Your task to perform on an android device: Show me recent news Image 0: 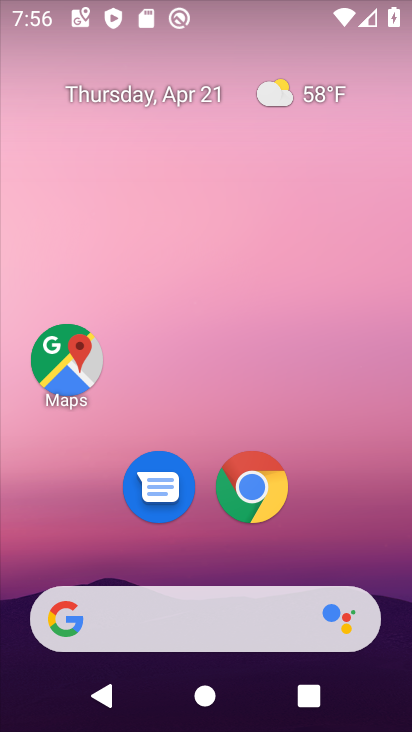
Step 0: drag from (355, 507) to (235, 26)
Your task to perform on an android device: Show me recent news Image 1: 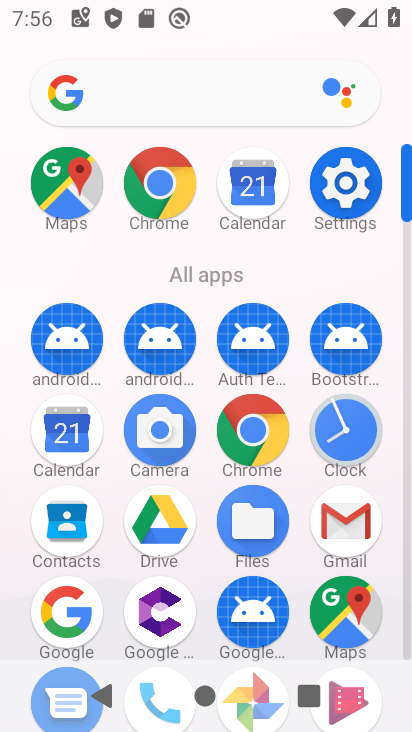
Step 1: drag from (9, 599) to (10, 266)
Your task to perform on an android device: Show me recent news Image 2: 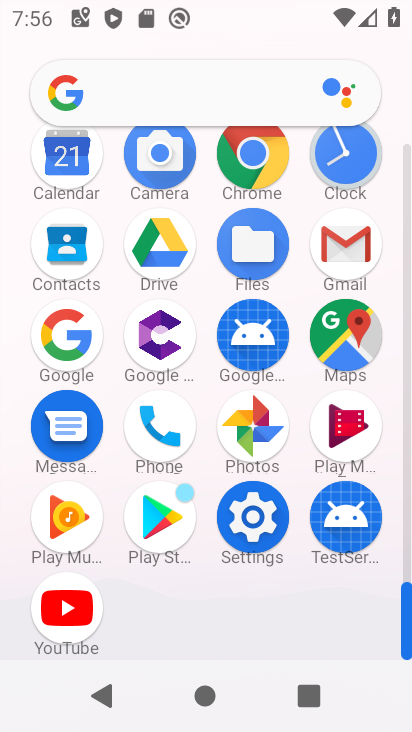
Step 2: click (252, 148)
Your task to perform on an android device: Show me recent news Image 3: 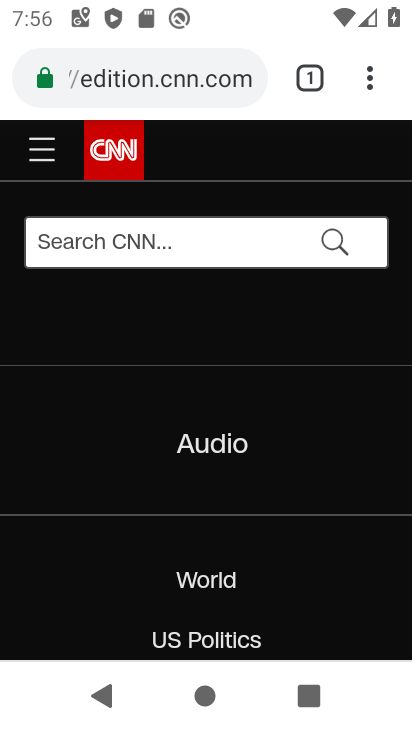
Step 3: click (186, 78)
Your task to perform on an android device: Show me recent news Image 4: 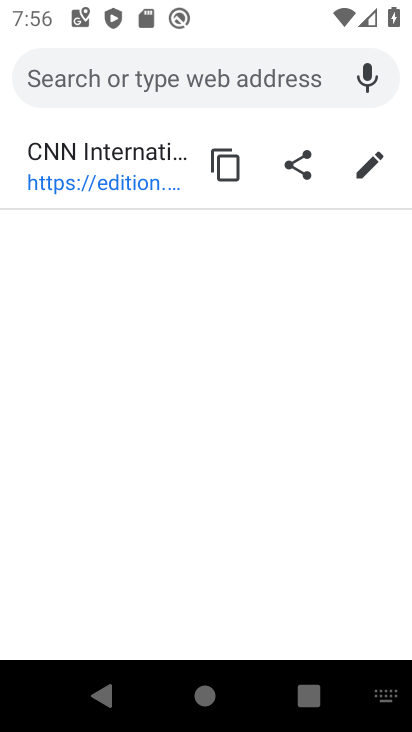
Step 4: type " recent news"
Your task to perform on an android device: Show me recent news Image 5: 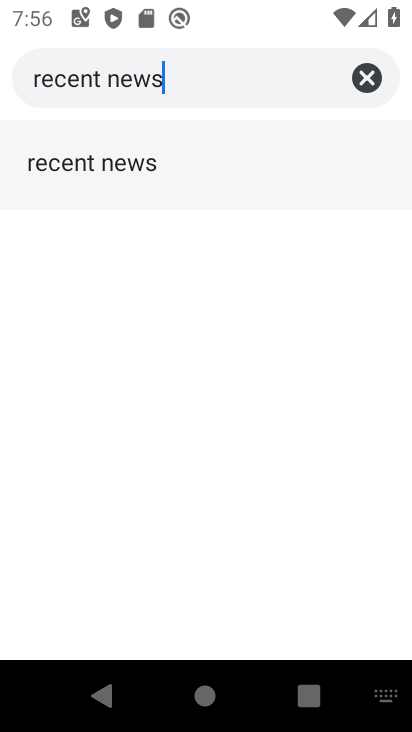
Step 5: type ""
Your task to perform on an android device: Show me recent news Image 6: 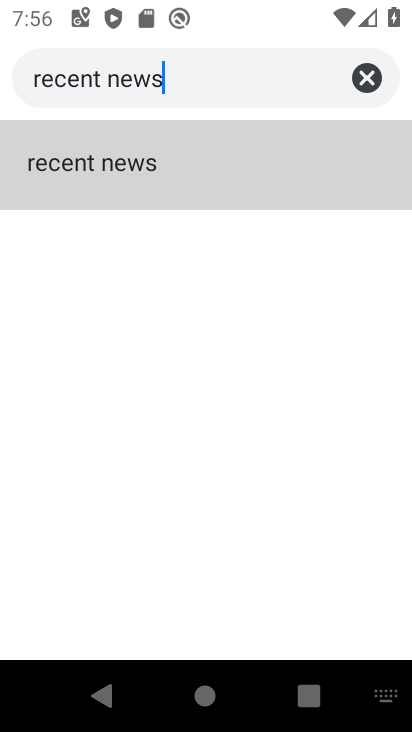
Step 6: click (139, 172)
Your task to perform on an android device: Show me recent news Image 7: 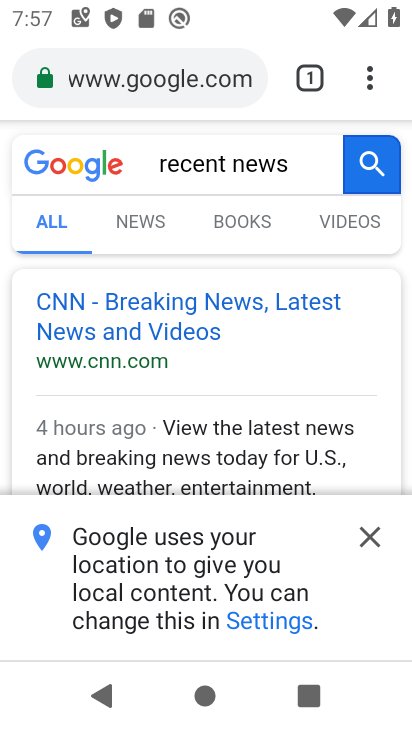
Step 7: click (149, 218)
Your task to perform on an android device: Show me recent news Image 8: 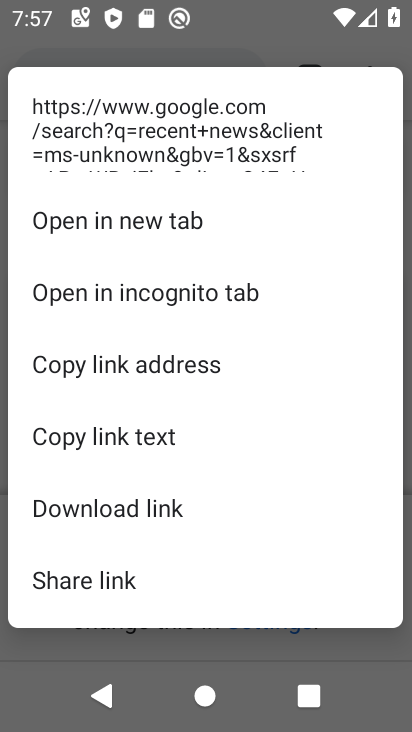
Step 8: click (230, 55)
Your task to perform on an android device: Show me recent news Image 9: 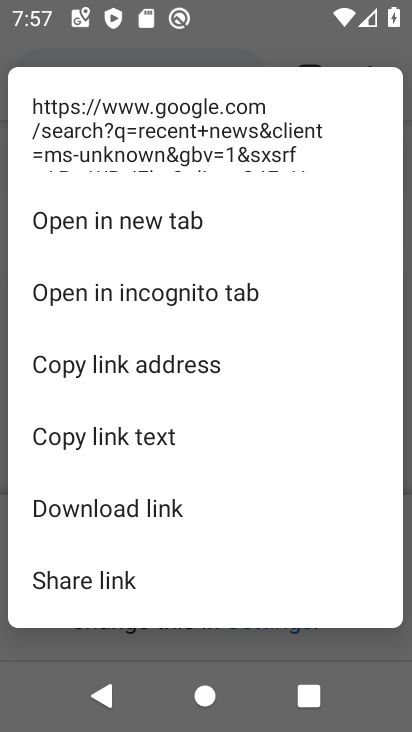
Step 9: press back button
Your task to perform on an android device: Show me recent news Image 10: 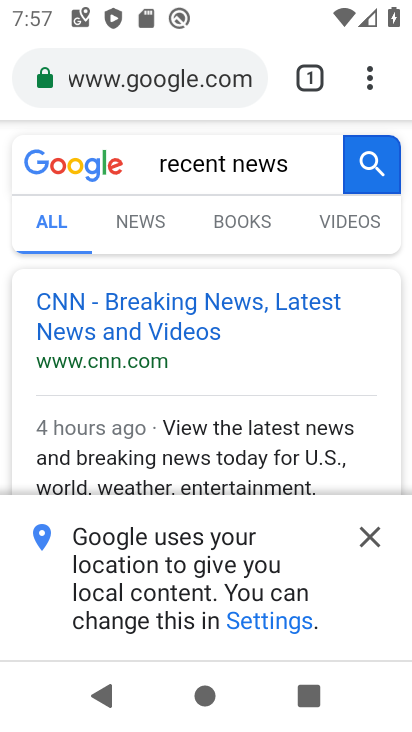
Step 10: click (146, 215)
Your task to perform on an android device: Show me recent news Image 11: 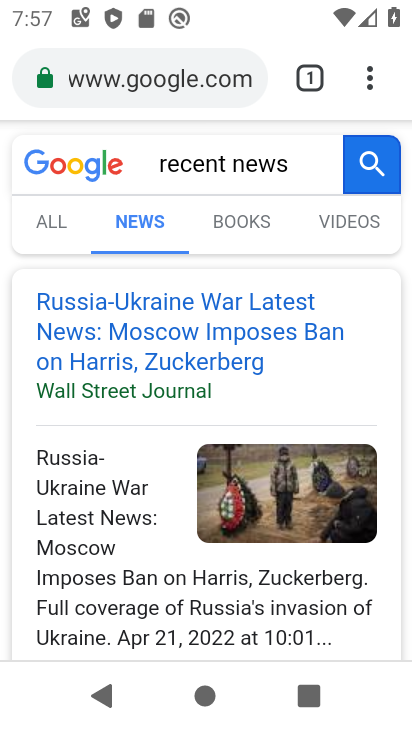
Step 11: task complete